Your task to perform on an android device: open a new tab in the chrome app Image 0: 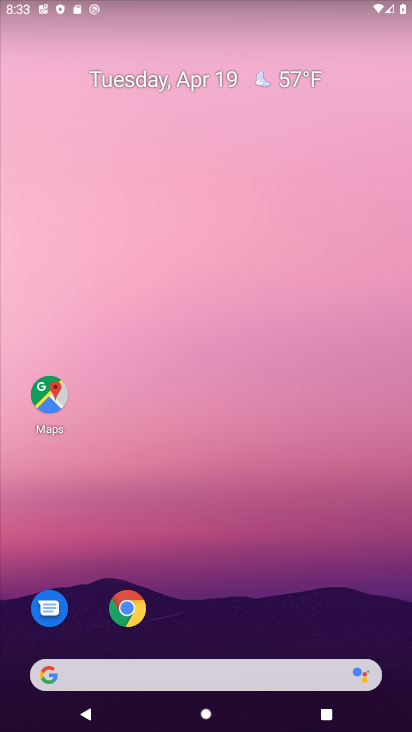
Step 0: click (123, 608)
Your task to perform on an android device: open a new tab in the chrome app Image 1: 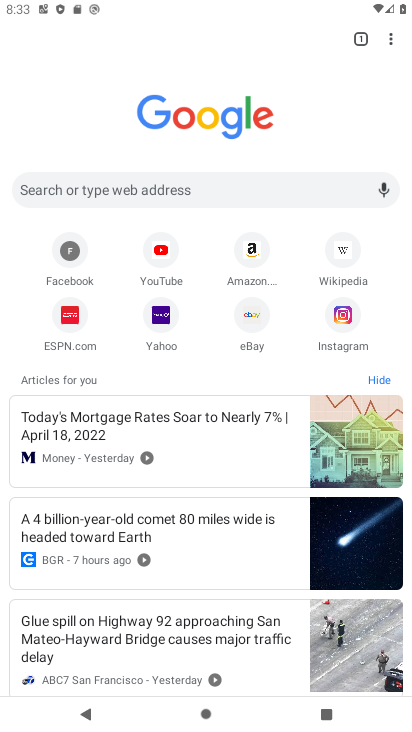
Step 1: click (356, 42)
Your task to perform on an android device: open a new tab in the chrome app Image 2: 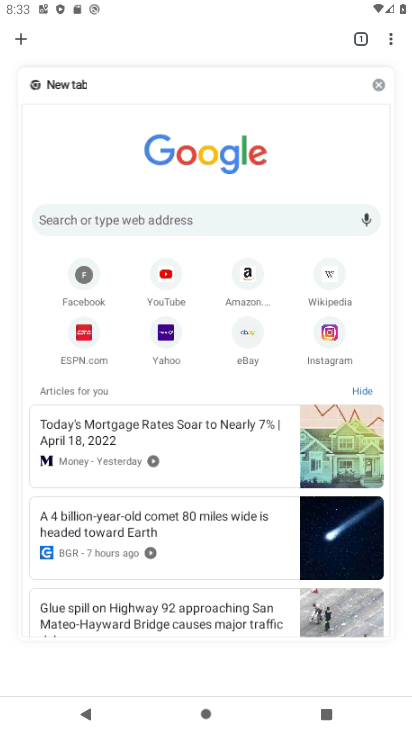
Step 2: click (18, 38)
Your task to perform on an android device: open a new tab in the chrome app Image 3: 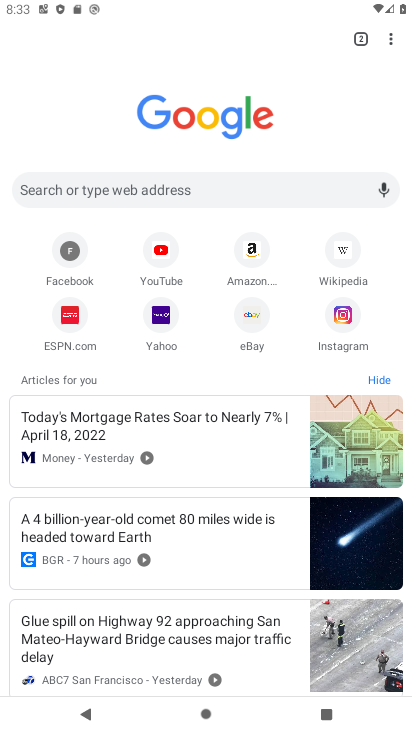
Step 3: task complete